Your task to perform on an android device: Go to CNN.com Image 0: 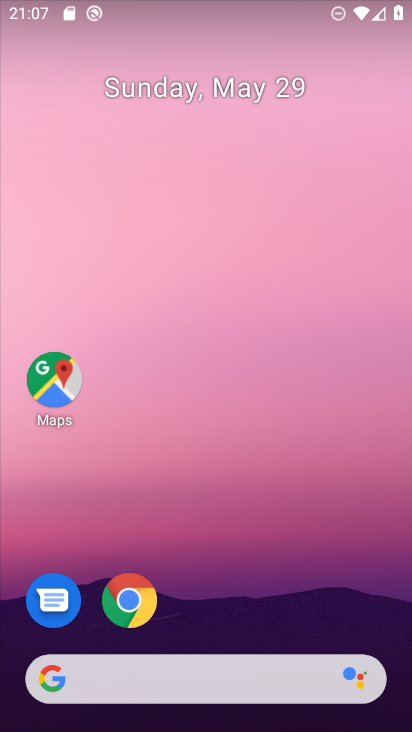
Step 0: drag from (345, 527) to (369, 111)
Your task to perform on an android device: Go to CNN.com Image 1: 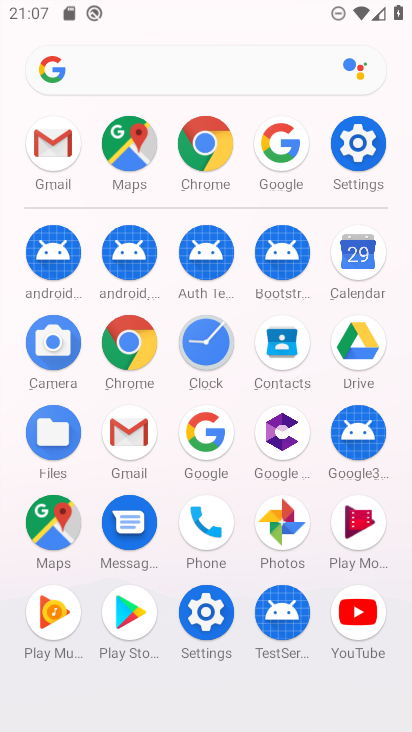
Step 1: click (149, 324)
Your task to perform on an android device: Go to CNN.com Image 2: 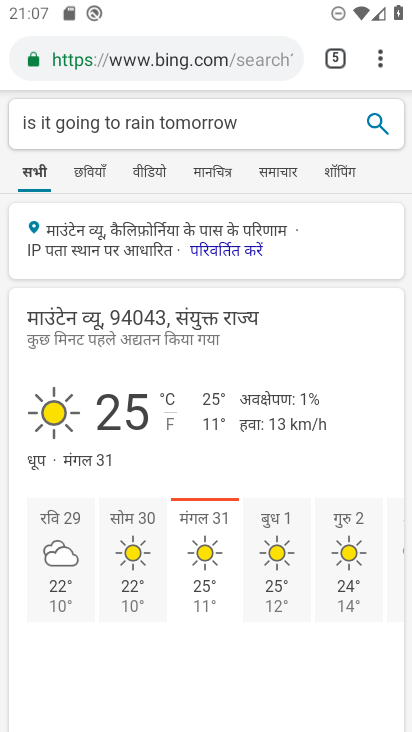
Step 2: click (175, 50)
Your task to perform on an android device: Go to CNN.com Image 3: 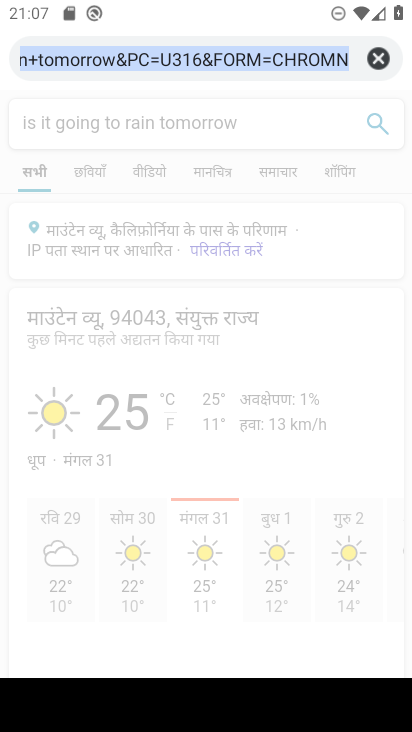
Step 3: click (380, 55)
Your task to perform on an android device: Go to CNN.com Image 4: 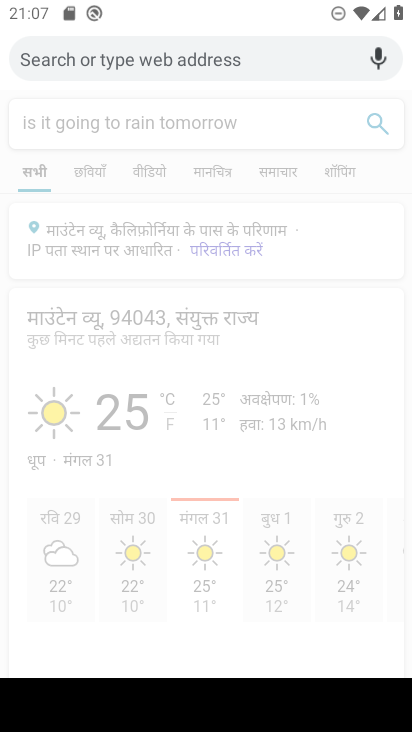
Step 4: type "cnn.com"
Your task to perform on an android device: Go to CNN.com Image 5: 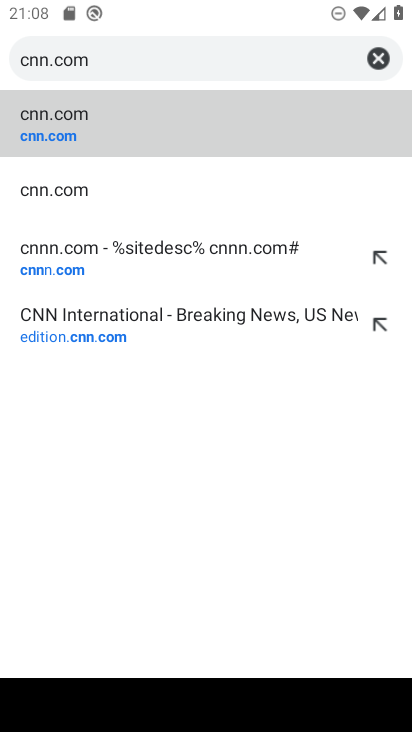
Step 5: click (114, 190)
Your task to perform on an android device: Go to CNN.com Image 6: 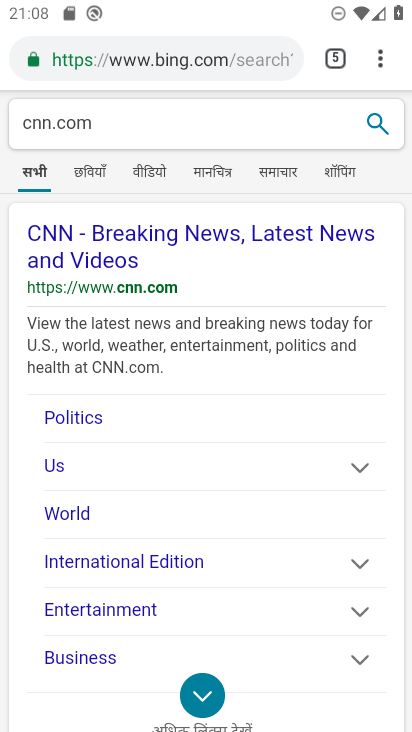
Step 6: click (115, 235)
Your task to perform on an android device: Go to CNN.com Image 7: 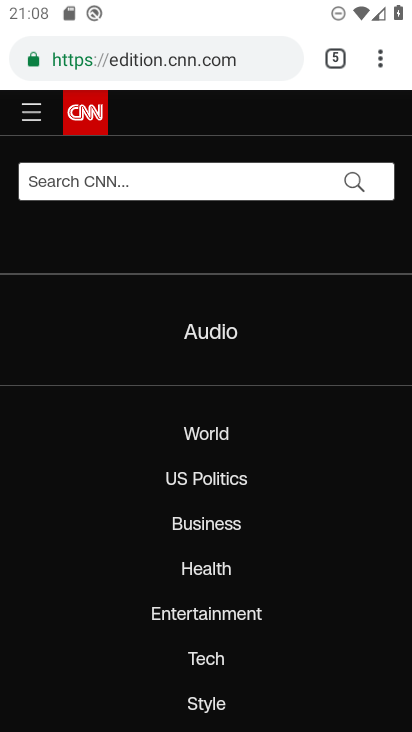
Step 7: task complete